Your task to perform on an android device: check out phone information Image 0: 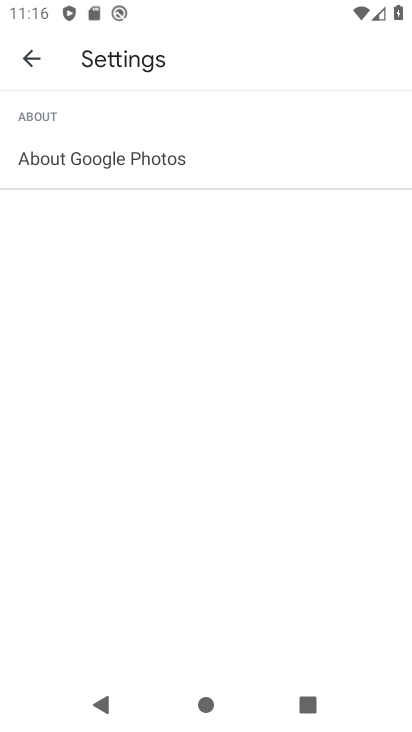
Step 0: press home button
Your task to perform on an android device: check out phone information Image 1: 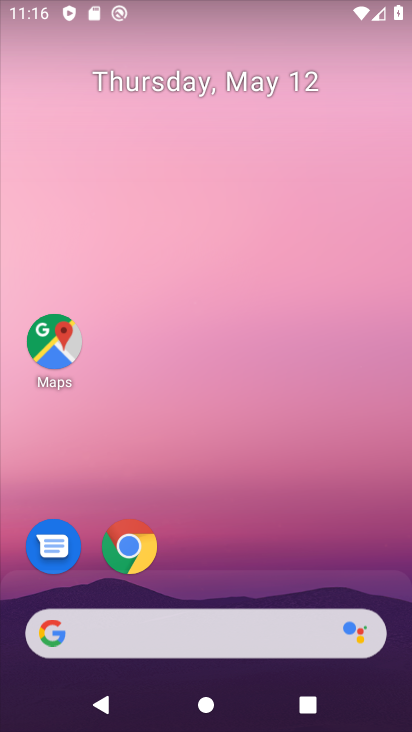
Step 1: drag from (281, 580) to (263, 35)
Your task to perform on an android device: check out phone information Image 2: 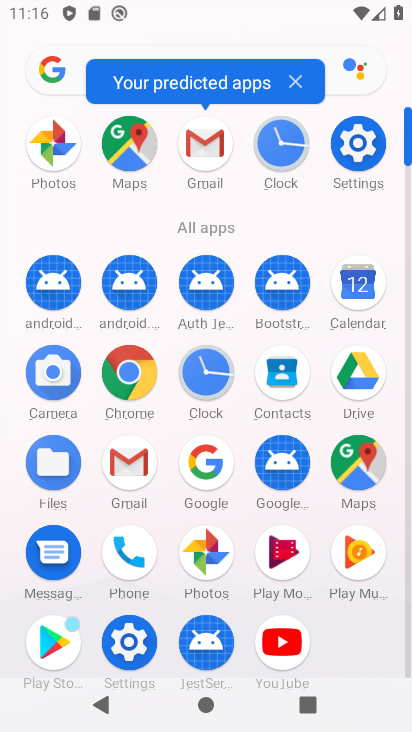
Step 2: click (363, 133)
Your task to perform on an android device: check out phone information Image 3: 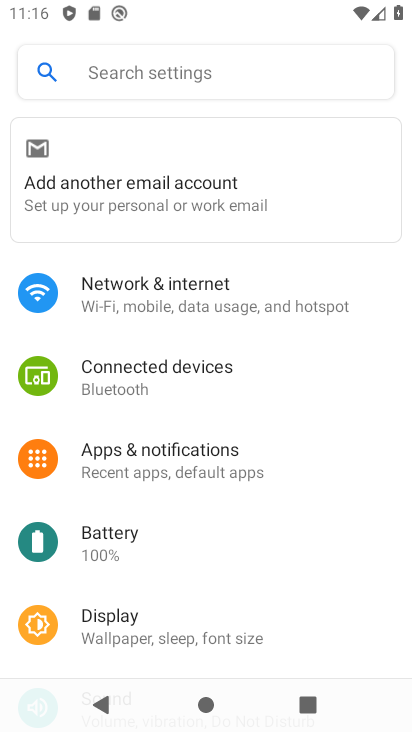
Step 3: drag from (243, 625) to (228, 152)
Your task to perform on an android device: check out phone information Image 4: 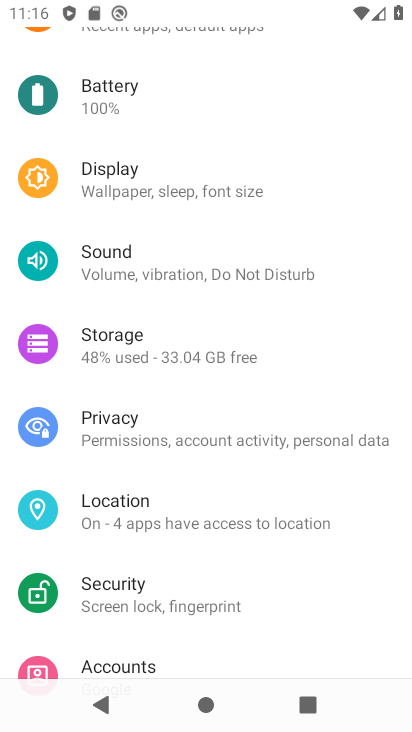
Step 4: drag from (272, 567) to (263, 229)
Your task to perform on an android device: check out phone information Image 5: 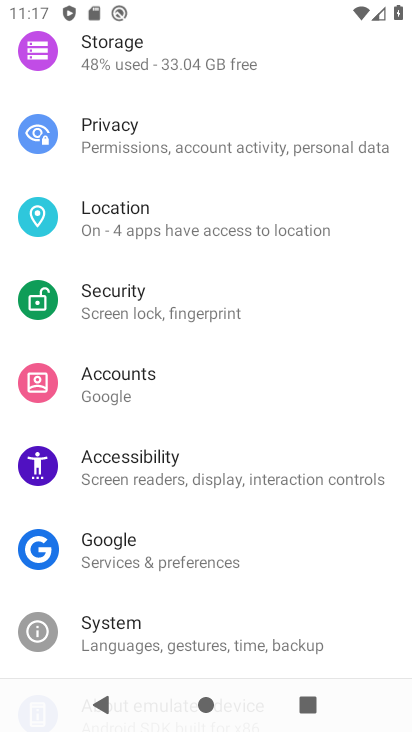
Step 5: drag from (216, 575) to (204, 219)
Your task to perform on an android device: check out phone information Image 6: 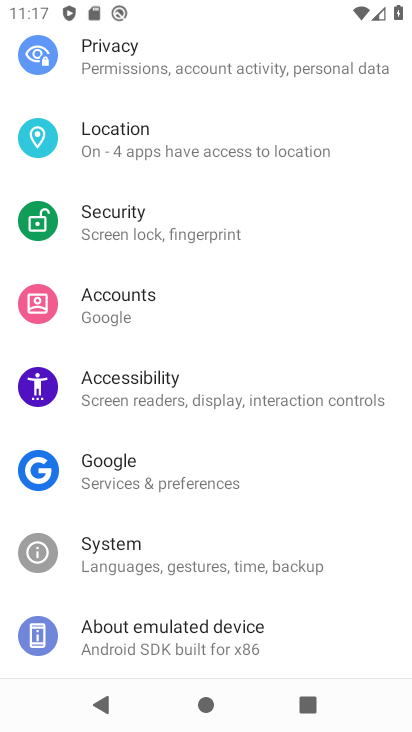
Step 6: click (259, 637)
Your task to perform on an android device: check out phone information Image 7: 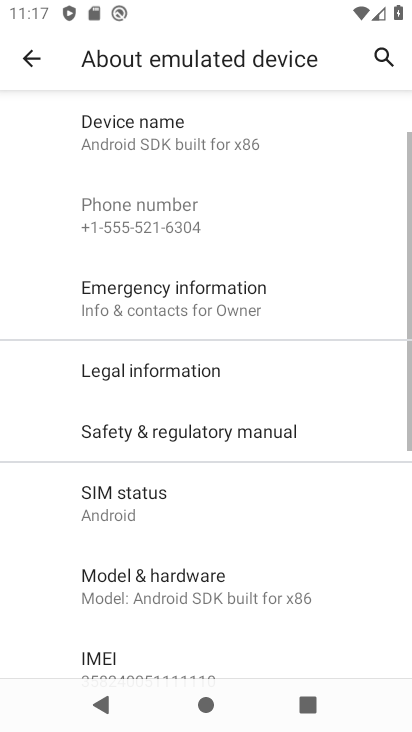
Step 7: drag from (272, 536) to (276, 222)
Your task to perform on an android device: check out phone information Image 8: 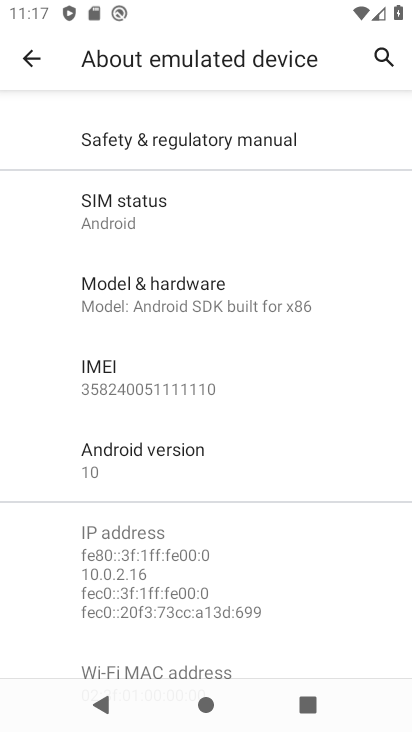
Step 8: click (215, 292)
Your task to perform on an android device: check out phone information Image 9: 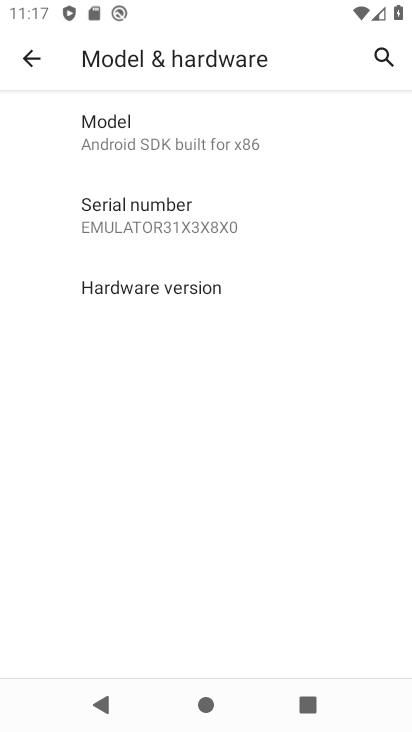
Step 9: task complete